Your task to perform on an android device: remove spam from my inbox in the gmail app Image 0: 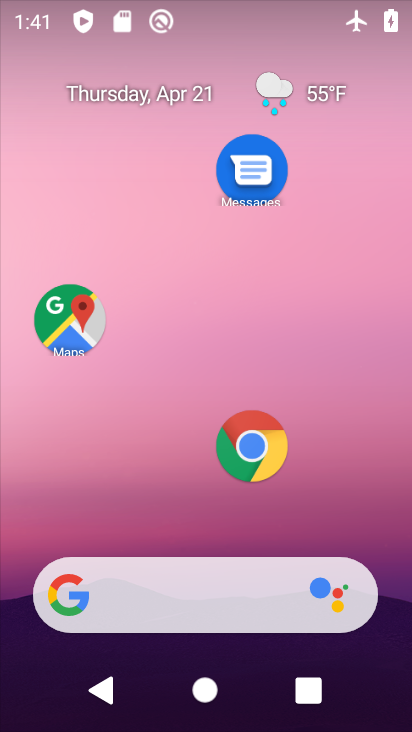
Step 0: drag from (183, 507) to (218, 62)
Your task to perform on an android device: remove spam from my inbox in the gmail app Image 1: 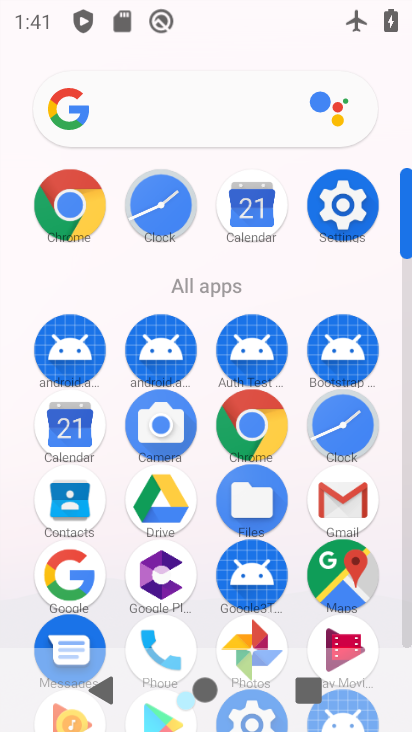
Step 1: drag from (295, 478) to (322, 270)
Your task to perform on an android device: remove spam from my inbox in the gmail app Image 2: 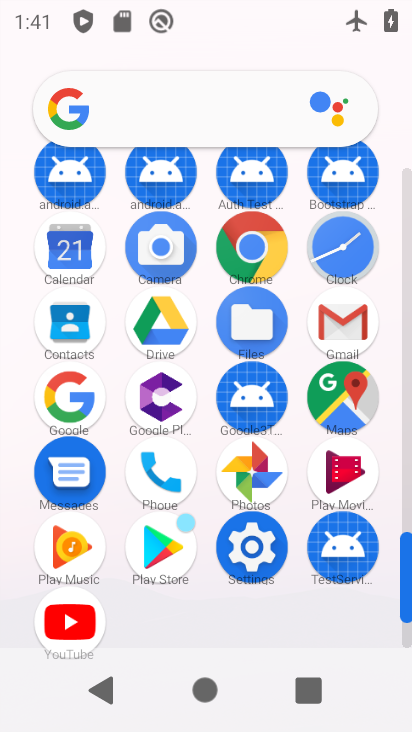
Step 2: click (345, 323)
Your task to perform on an android device: remove spam from my inbox in the gmail app Image 3: 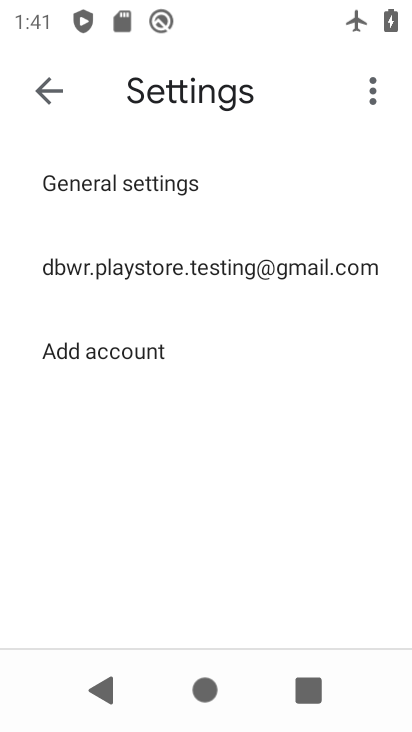
Step 3: press back button
Your task to perform on an android device: remove spam from my inbox in the gmail app Image 4: 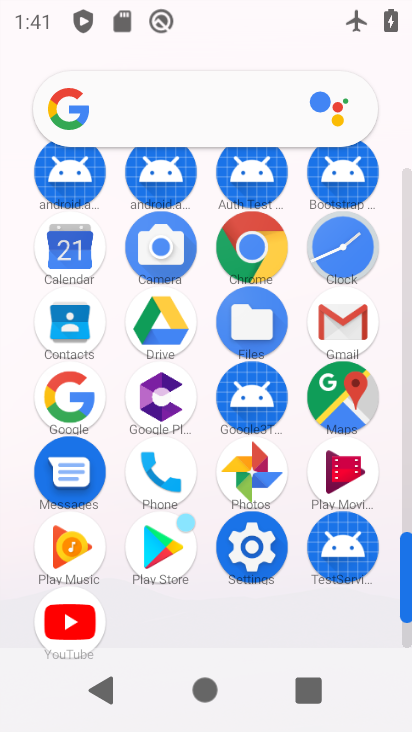
Step 4: click (344, 321)
Your task to perform on an android device: remove spam from my inbox in the gmail app Image 5: 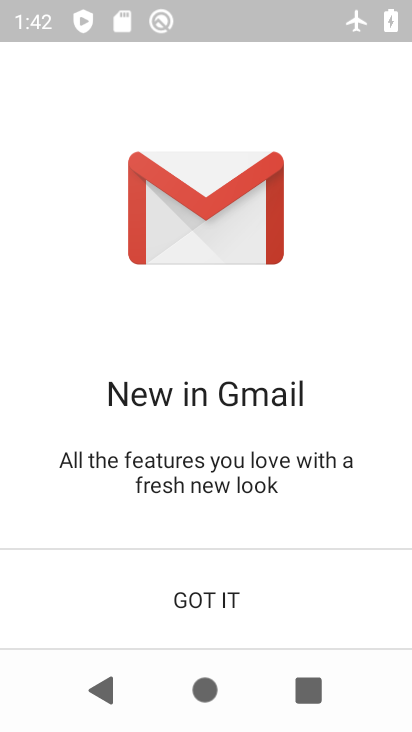
Step 5: click (214, 596)
Your task to perform on an android device: remove spam from my inbox in the gmail app Image 6: 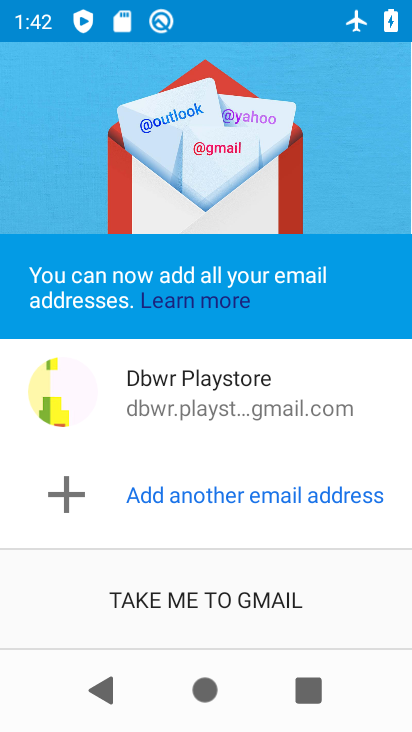
Step 6: click (214, 596)
Your task to perform on an android device: remove spam from my inbox in the gmail app Image 7: 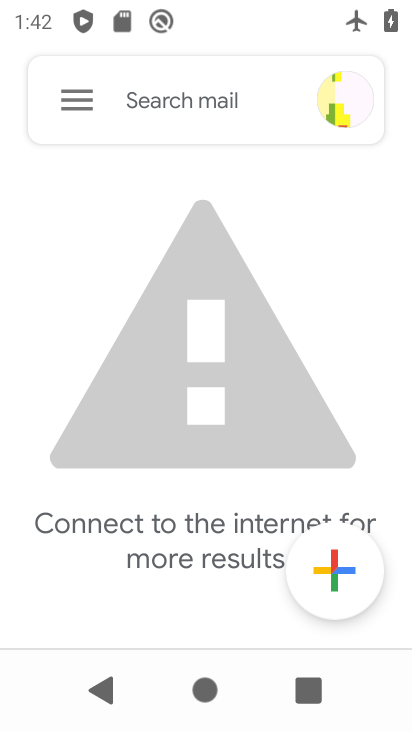
Step 7: click (78, 98)
Your task to perform on an android device: remove spam from my inbox in the gmail app Image 8: 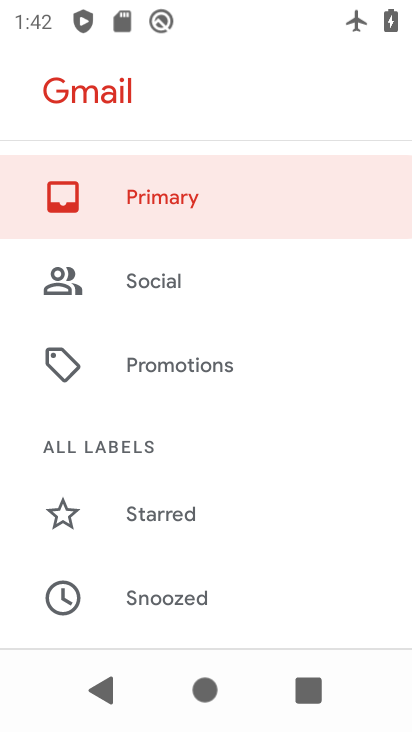
Step 8: drag from (205, 551) to (269, 394)
Your task to perform on an android device: remove spam from my inbox in the gmail app Image 9: 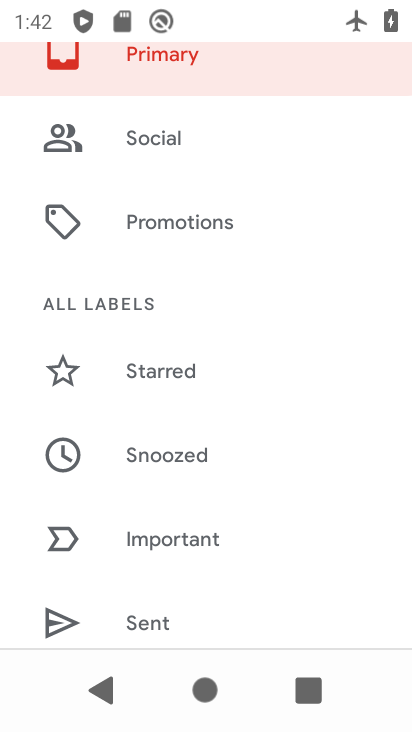
Step 9: drag from (202, 568) to (242, 452)
Your task to perform on an android device: remove spam from my inbox in the gmail app Image 10: 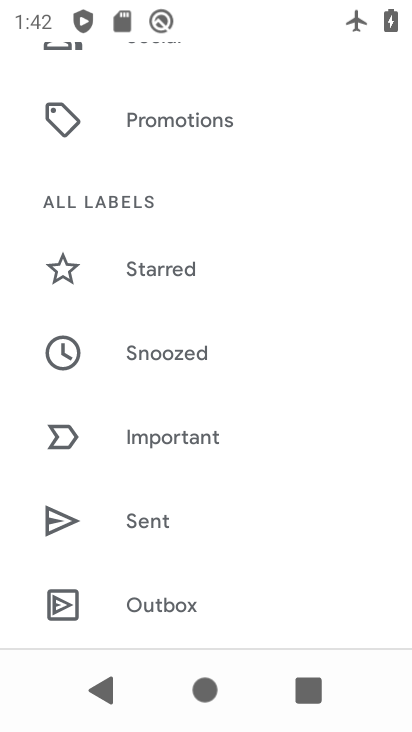
Step 10: drag from (192, 555) to (234, 407)
Your task to perform on an android device: remove spam from my inbox in the gmail app Image 11: 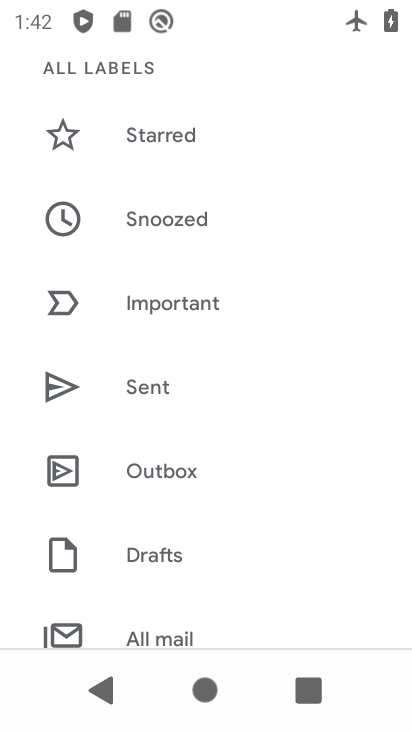
Step 11: drag from (208, 542) to (253, 435)
Your task to perform on an android device: remove spam from my inbox in the gmail app Image 12: 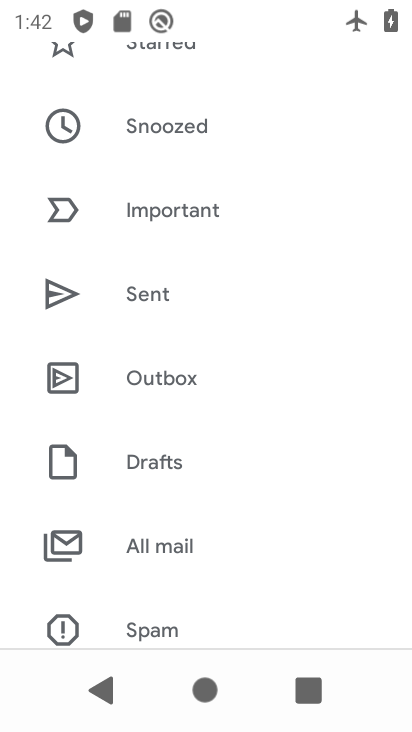
Step 12: click (145, 618)
Your task to perform on an android device: remove spam from my inbox in the gmail app Image 13: 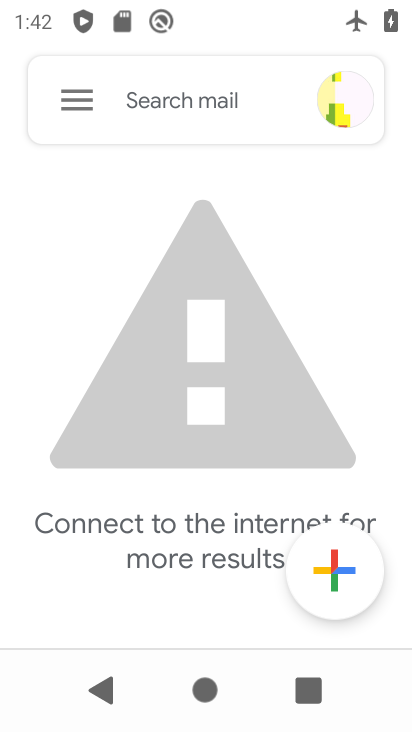
Step 13: task complete